Your task to perform on an android device: Go to sound settings Image 0: 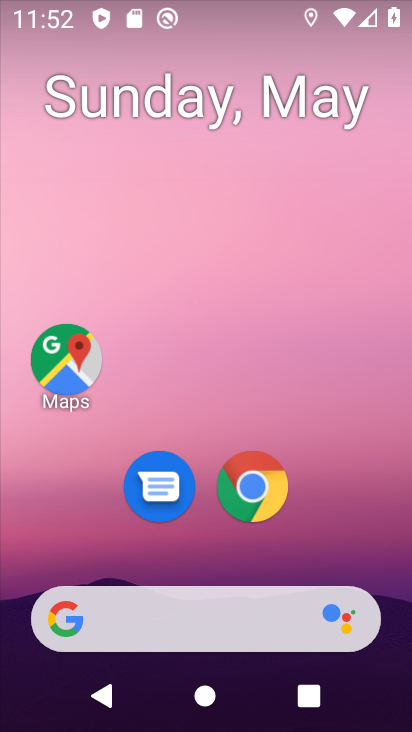
Step 0: drag from (394, 598) to (335, 117)
Your task to perform on an android device: Go to sound settings Image 1: 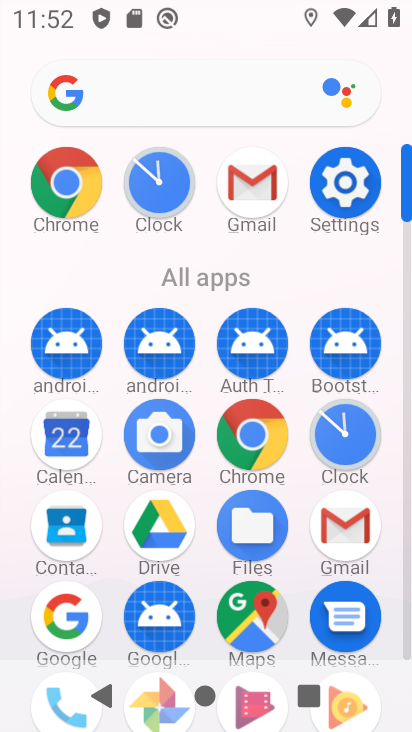
Step 1: click (411, 643)
Your task to perform on an android device: Go to sound settings Image 2: 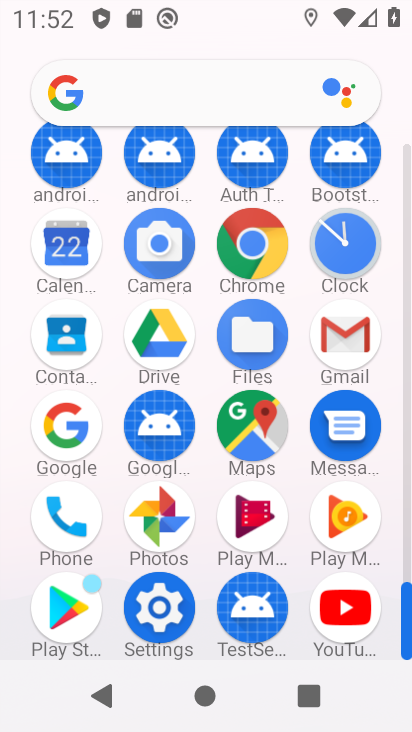
Step 2: click (160, 604)
Your task to perform on an android device: Go to sound settings Image 3: 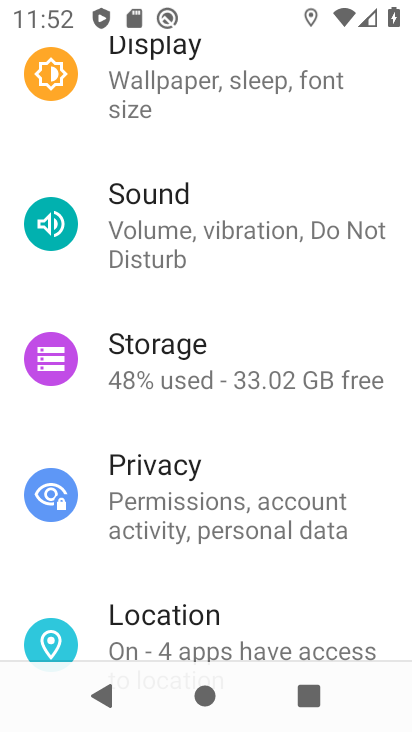
Step 3: click (148, 224)
Your task to perform on an android device: Go to sound settings Image 4: 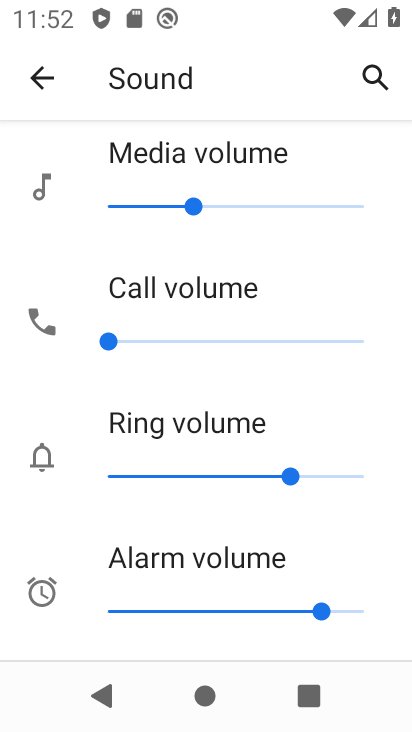
Step 4: drag from (335, 594) to (323, 170)
Your task to perform on an android device: Go to sound settings Image 5: 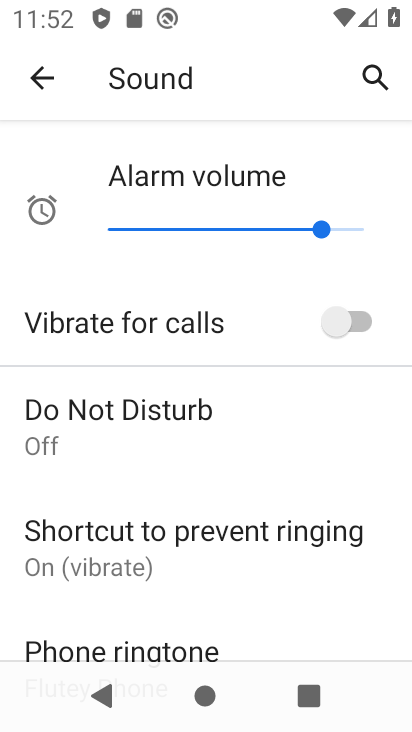
Step 5: drag from (314, 533) to (350, 207)
Your task to perform on an android device: Go to sound settings Image 6: 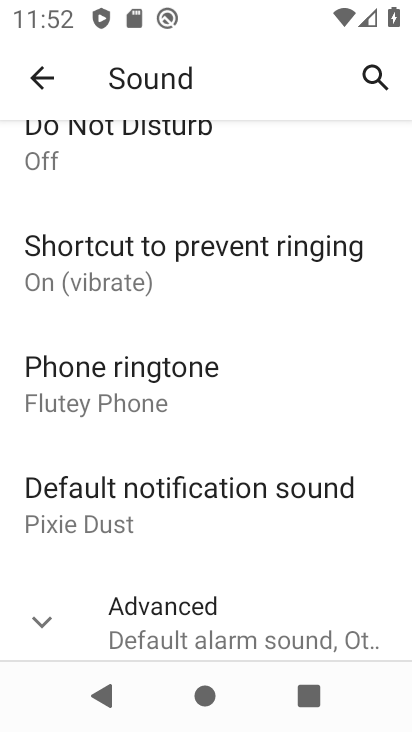
Step 6: click (39, 617)
Your task to perform on an android device: Go to sound settings Image 7: 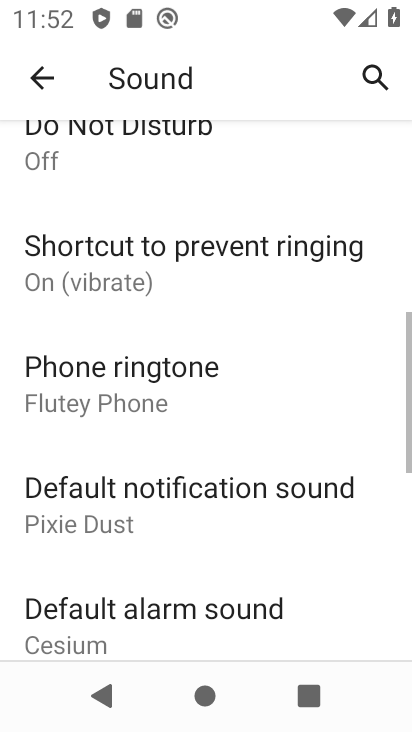
Step 7: task complete